Your task to perform on an android device: toggle notification dots Image 0: 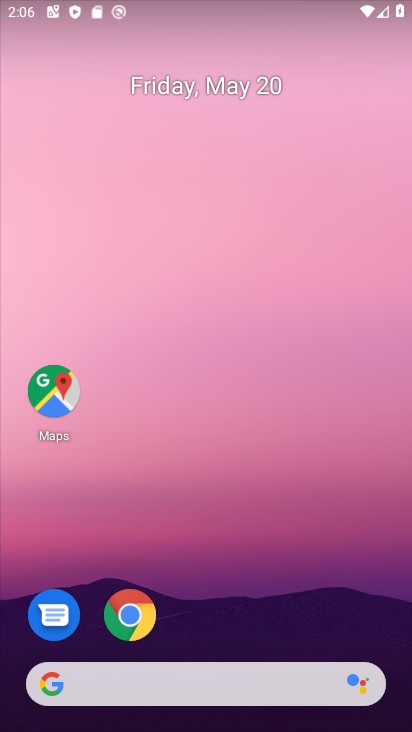
Step 0: drag from (206, 589) to (191, 272)
Your task to perform on an android device: toggle notification dots Image 1: 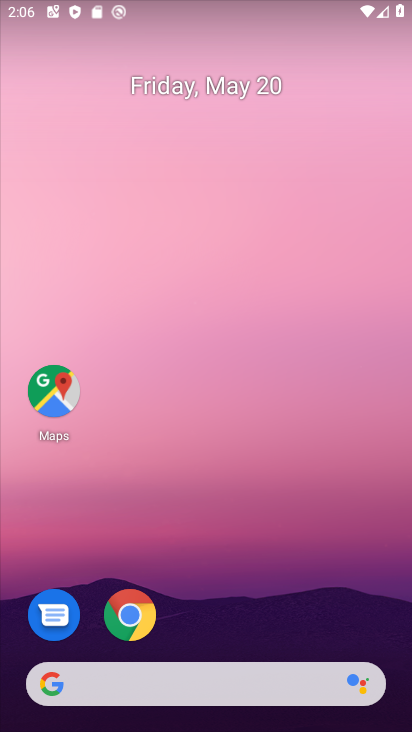
Step 1: drag from (242, 641) to (256, 295)
Your task to perform on an android device: toggle notification dots Image 2: 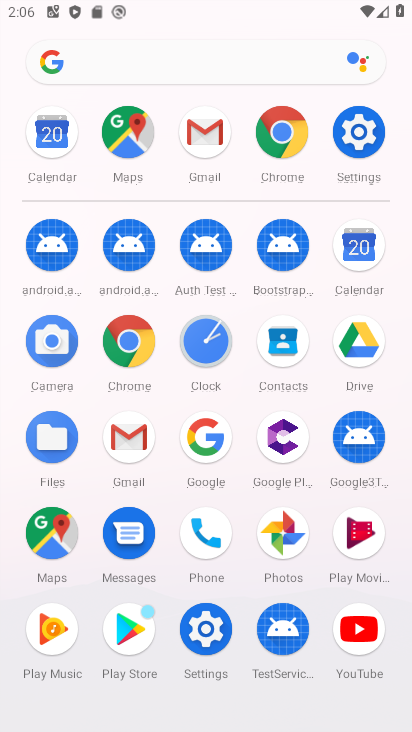
Step 2: click (360, 125)
Your task to perform on an android device: toggle notification dots Image 3: 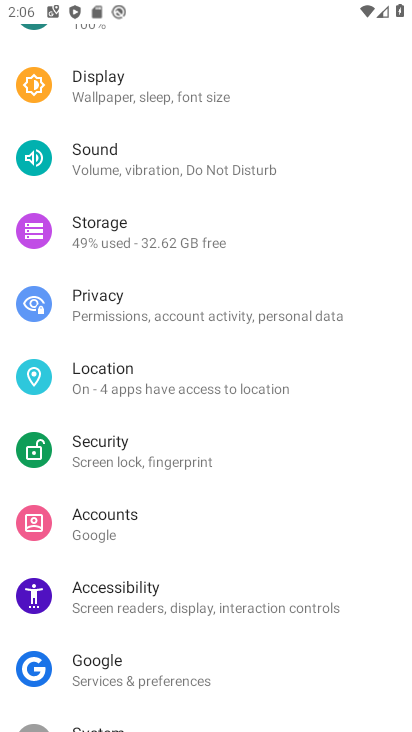
Step 3: drag from (200, 105) to (226, 514)
Your task to perform on an android device: toggle notification dots Image 4: 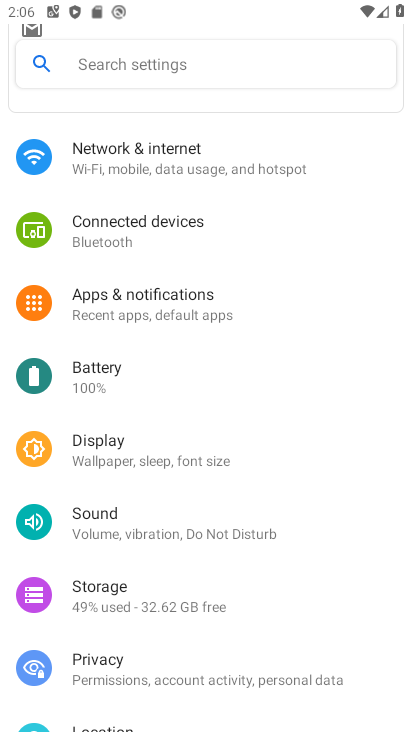
Step 4: click (201, 53)
Your task to perform on an android device: toggle notification dots Image 5: 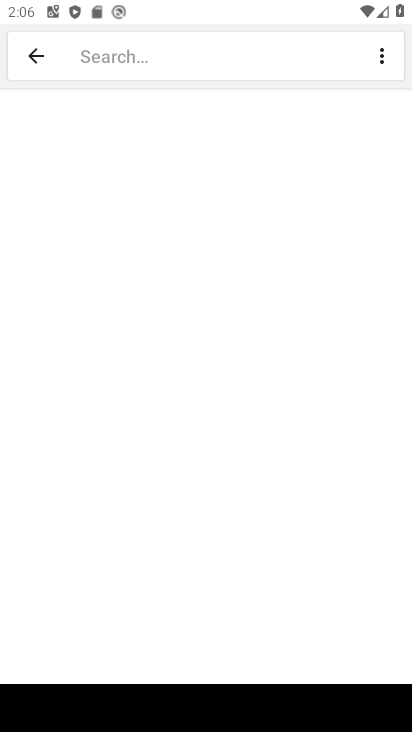
Step 5: click (266, 46)
Your task to perform on an android device: toggle notification dots Image 6: 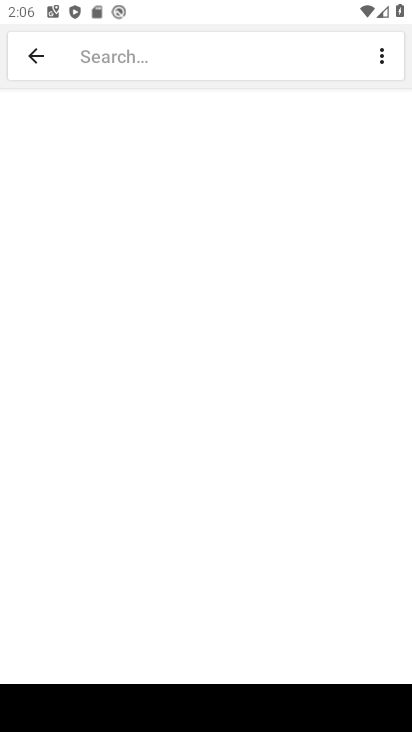
Step 6: type "notification dots"
Your task to perform on an android device: toggle notification dots Image 7: 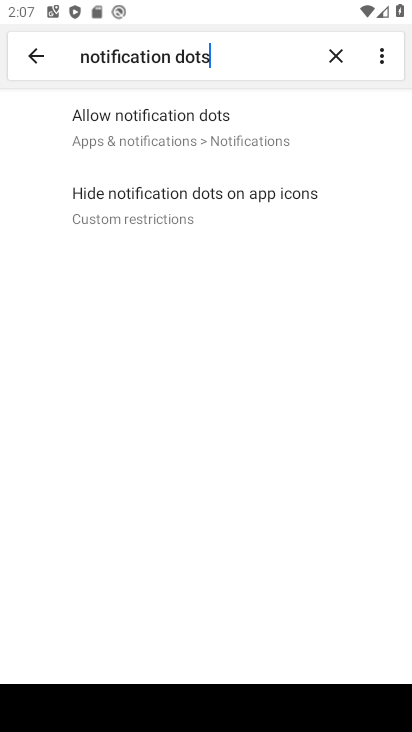
Step 7: click (157, 125)
Your task to perform on an android device: toggle notification dots Image 8: 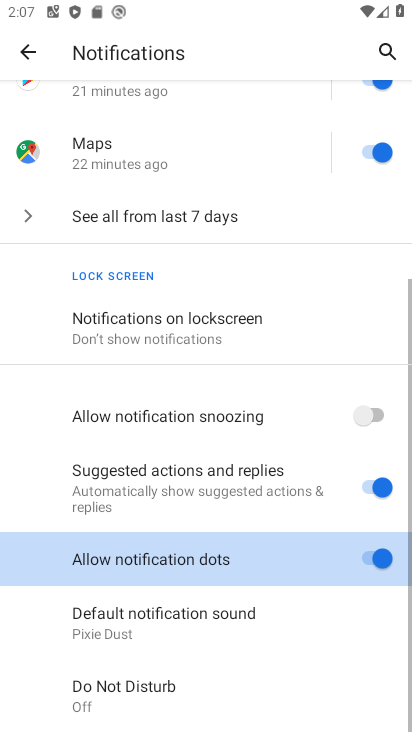
Step 8: click (364, 545)
Your task to perform on an android device: toggle notification dots Image 9: 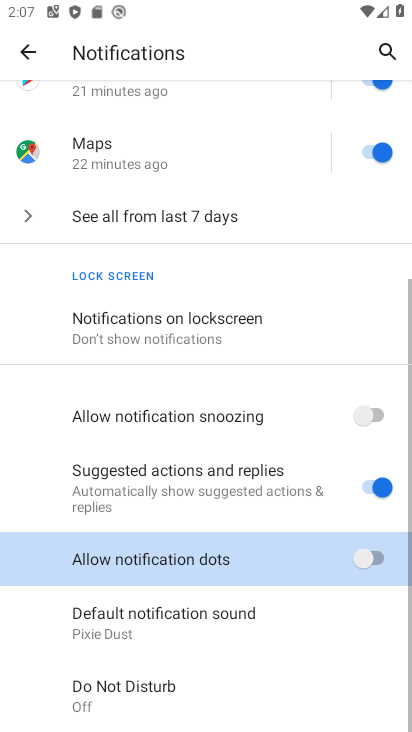
Step 9: task complete